Your task to perform on an android device: turn off data saver in the chrome app Image 0: 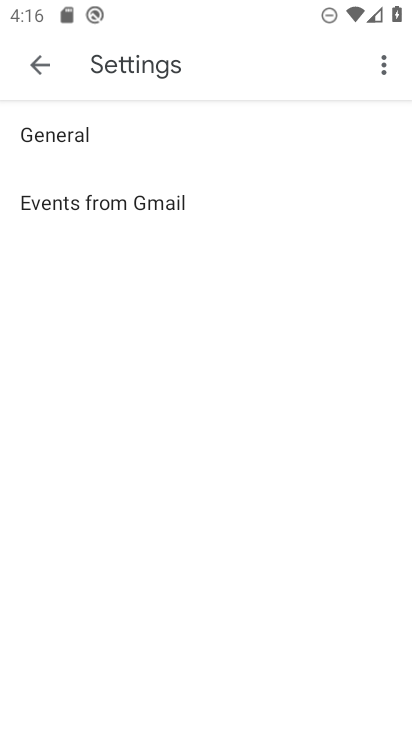
Step 0: press home button
Your task to perform on an android device: turn off data saver in the chrome app Image 1: 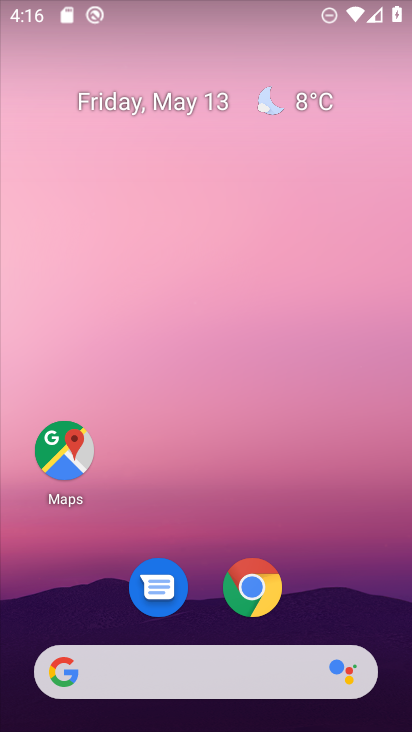
Step 1: drag from (195, 614) to (198, 231)
Your task to perform on an android device: turn off data saver in the chrome app Image 2: 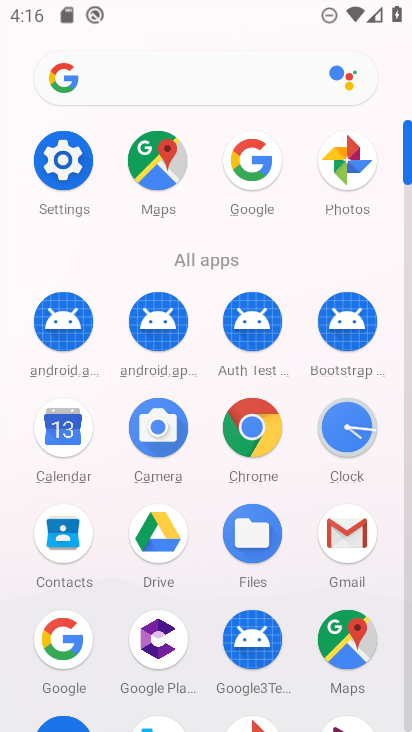
Step 2: click (236, 403)
Your task to perform on an android device: turn off data saver in the chrome app Image 3: 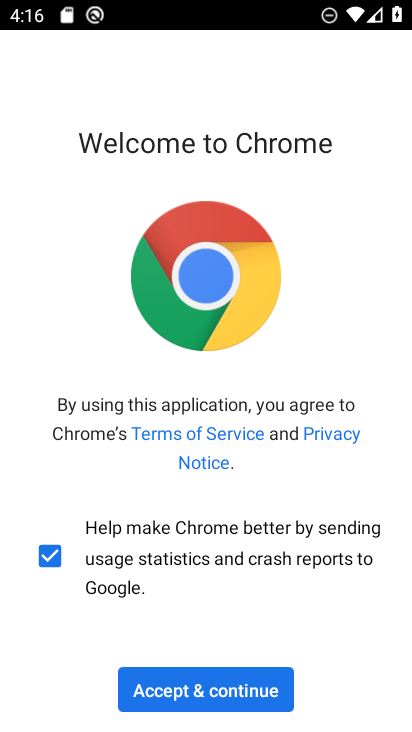
Step 3: click (205, 689)
Your task to perform on an android device: turn off data saver in the chrome app Image 4: 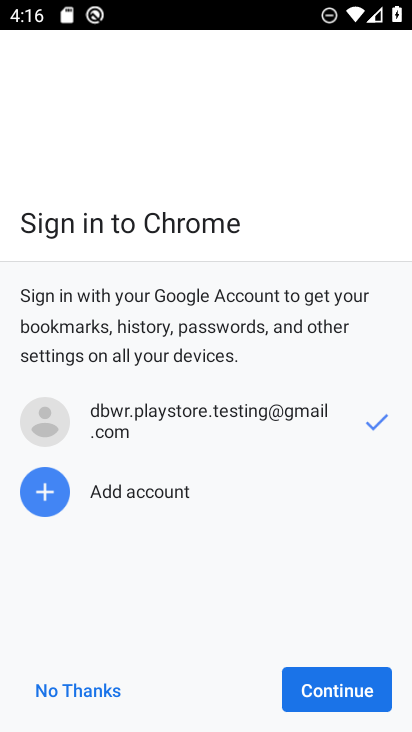
Step 4: click (328, 689)
Your task to perform on an android device: turn off data saver in the chrome app Image 5: 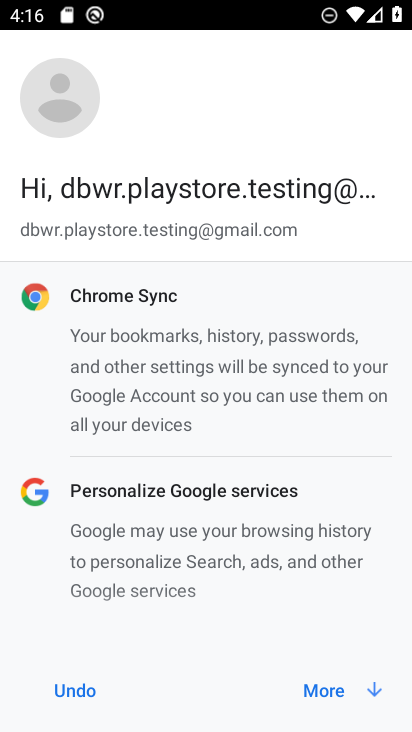
Step 5: click (333, 687)
Your task to perform on an android device: turn off data saver in the chrome app Image 6: 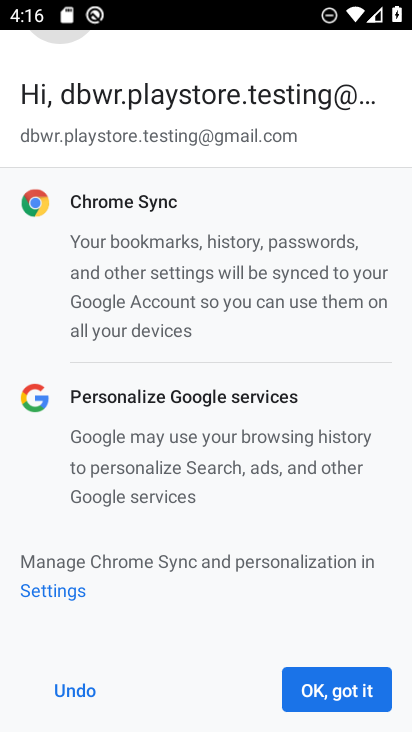
Step 6: click (333, 687)
Your task to perform on an android device: turn off data saver in the chrome app Image 7: 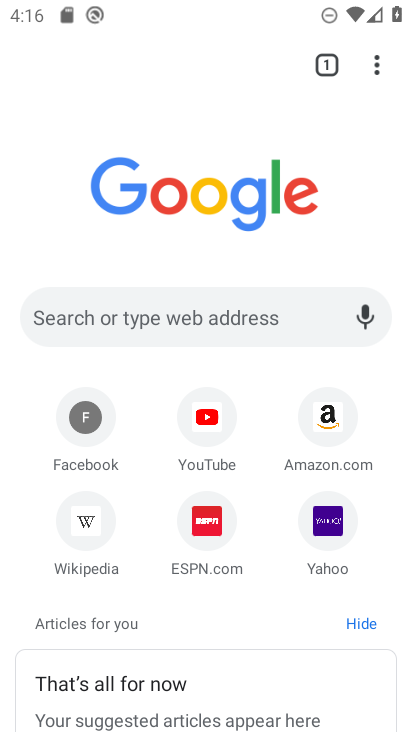
Step 7: click (374, 53)
Your task to perform on an android device: turn off data saver in the chrome app Image 8: 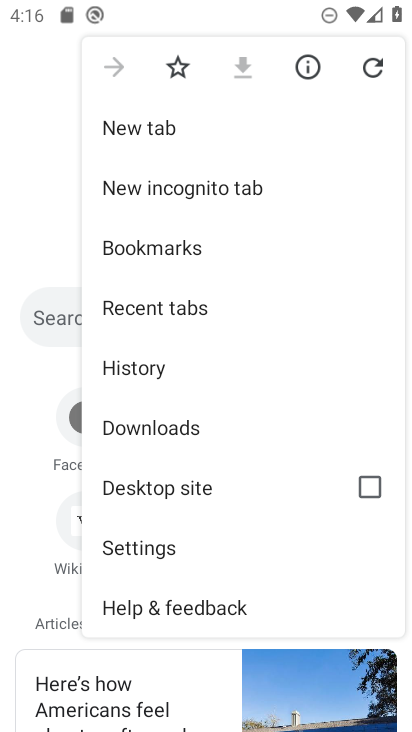
Step 8: drag from (204, 491) to (222, 282)
Your task to perform on an android device: turn off data saver in the chrome app Image 9: 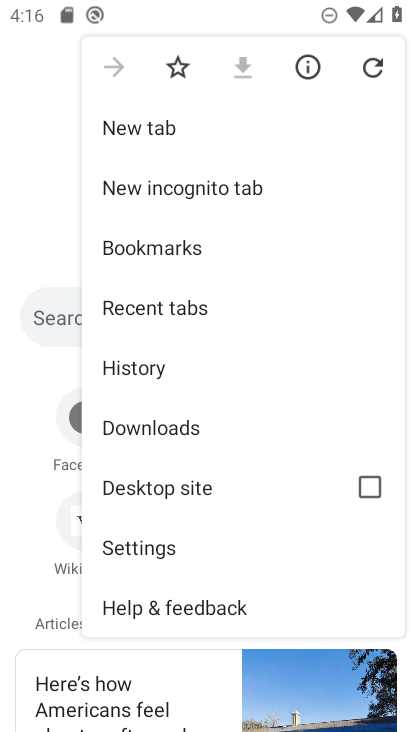
Step 9: click (146, 540)
Your task to perform on an android device: turn off data saver in the chrome app Image 10: 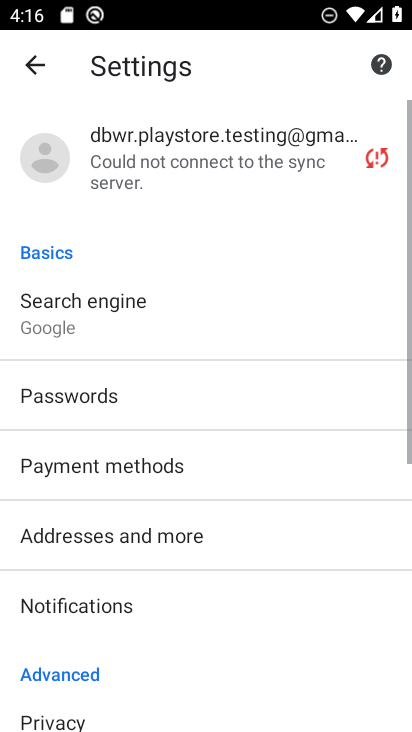
Step 10: drag from (157, 584) to (223, 285)
Your task to perform on an android device: turn off data saver in the chrome app Image 11: 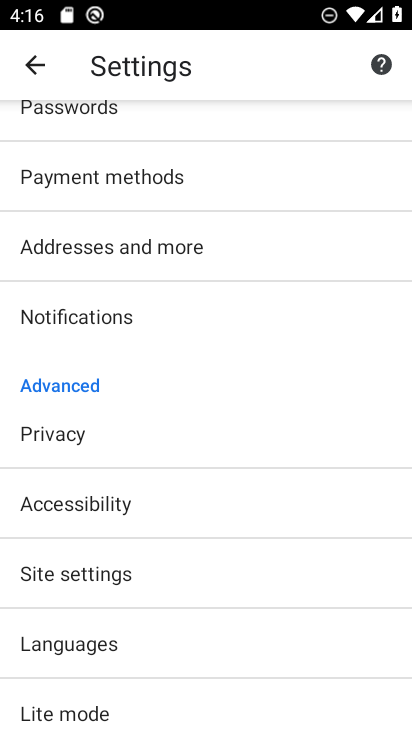
Step 11: click (116, 577)
Your task to perform on an android device: turn off data saver in the chrome app Image 12: 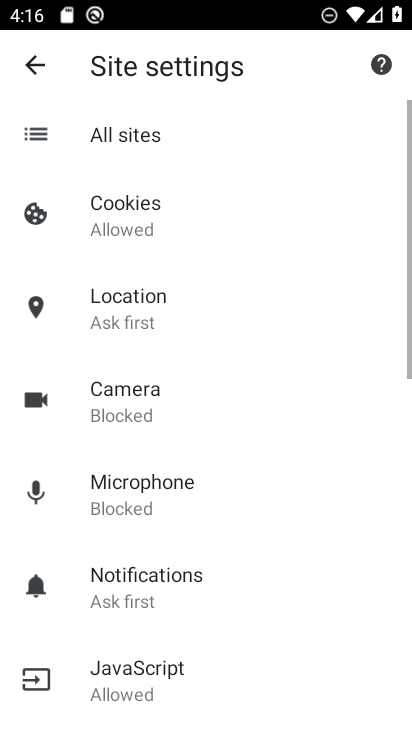
Step 12: drag from (128, 566) to (179, 241)
Your task to perform on an android device: turn off data saver in the chrome app Image 13: 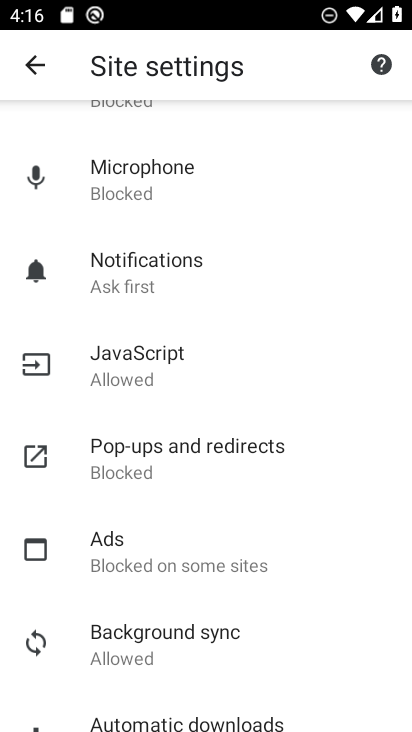
Step 13: click (39, 63)
Your task to perform on an android device: turn off data saver in the chrome app Image 14: 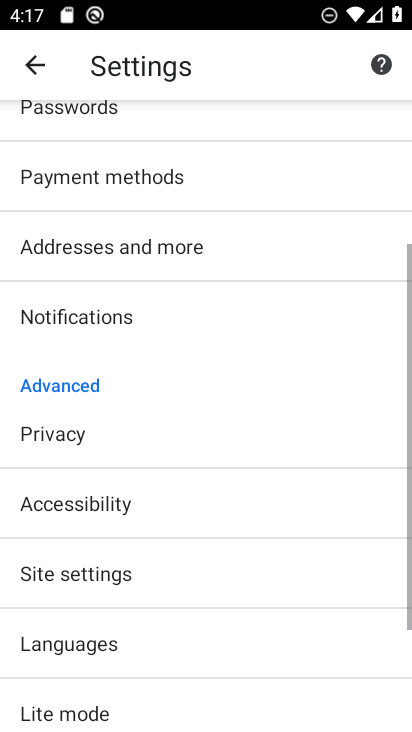
Step 14: drag from (169, 663) to (171, 421)
Your task to perform on an android device: turn off data saver in the chrome app Image 15: 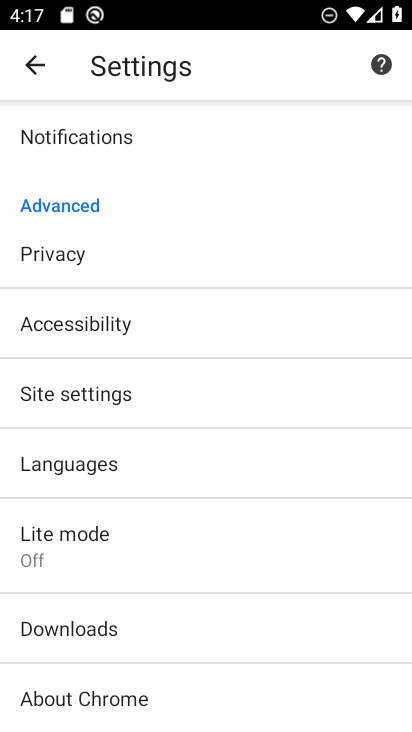
Step 15: click (110, 520)
Your task to perform on an android device: turn off data saver in the chrome app Image 16: 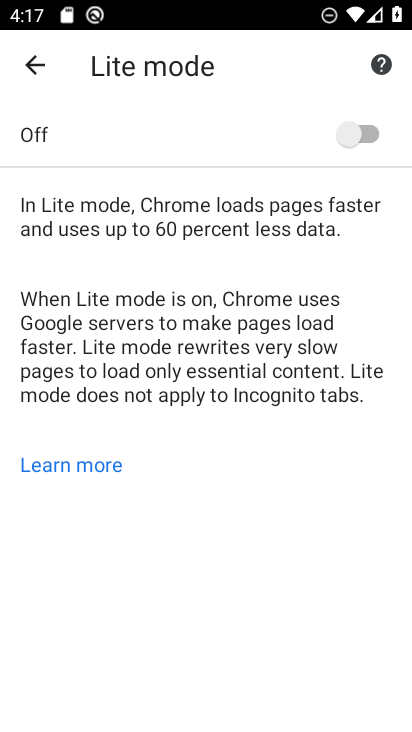
Step 16: task complete